Your task to perform on an android device: Go to Yahoo.com Image 0: 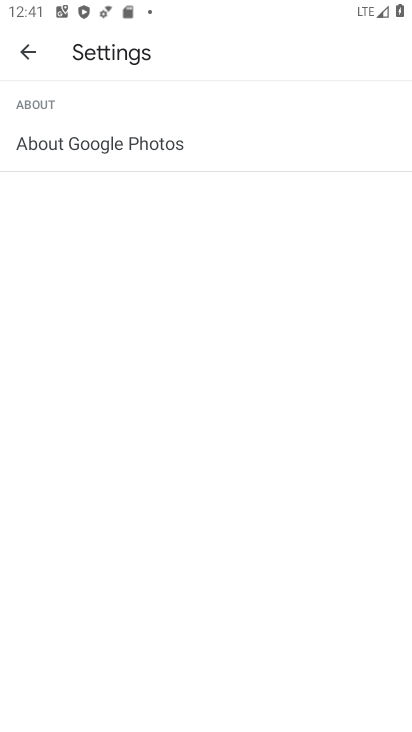
Step 0: press home button
Your task to perform on an android device: Go to Yahoo.com Image 1: 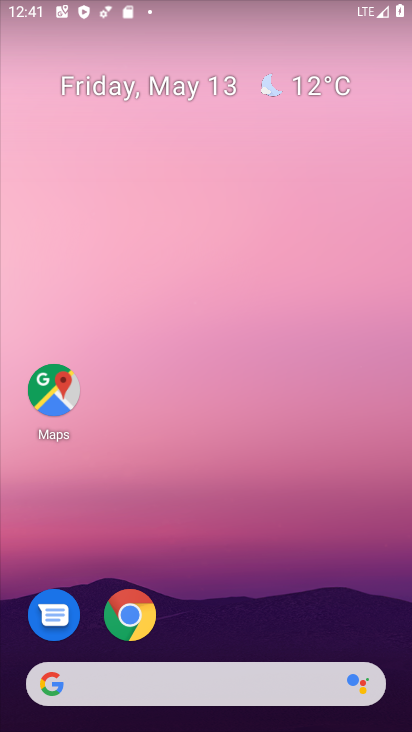
Step 1: click (121, 630)
Your task to perform on an android device: Go to Yahoo.com Image 2: 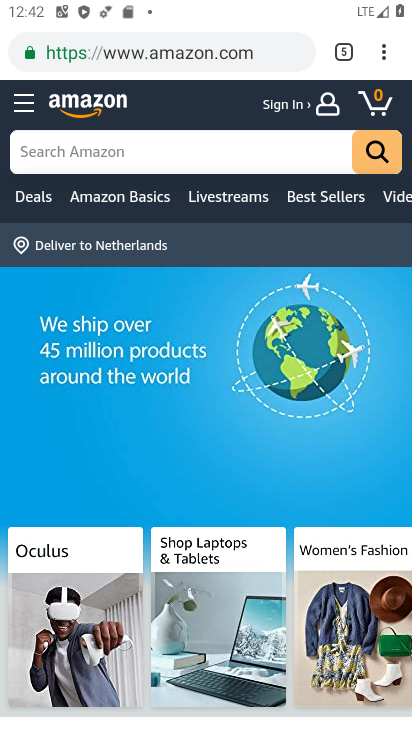
Step 2: click (341, 46)
Your task to perform on an android device: Go to Yahoo.com Image 3: 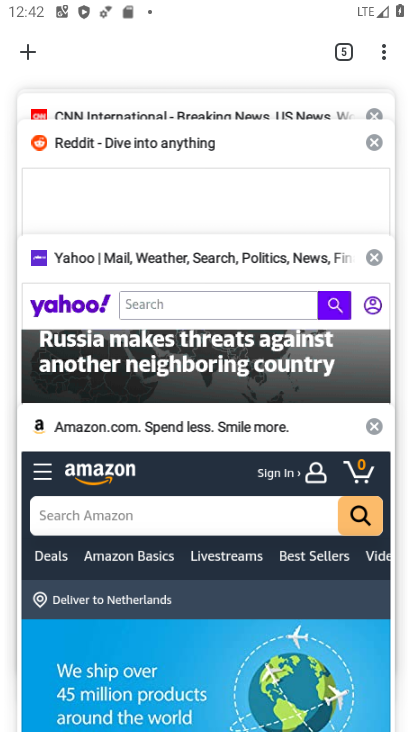
Step 3: click (192, 269)
Your task to perform on an android device: Go to Yahoo.com Image 4: 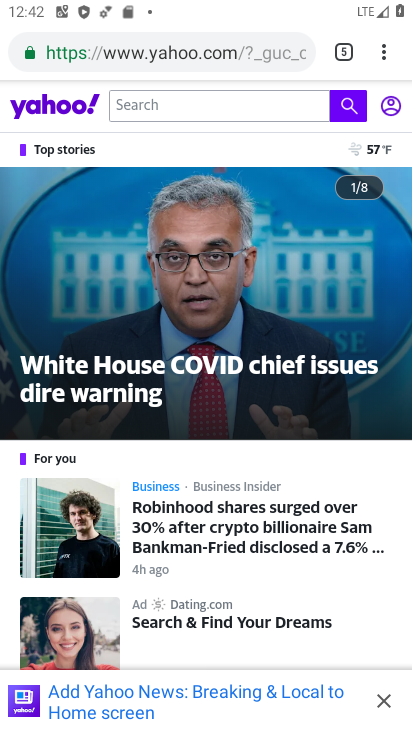
Step 4: task complete